Your task to perform on an android device: turn on showing notifications on the lock screen Image 0: 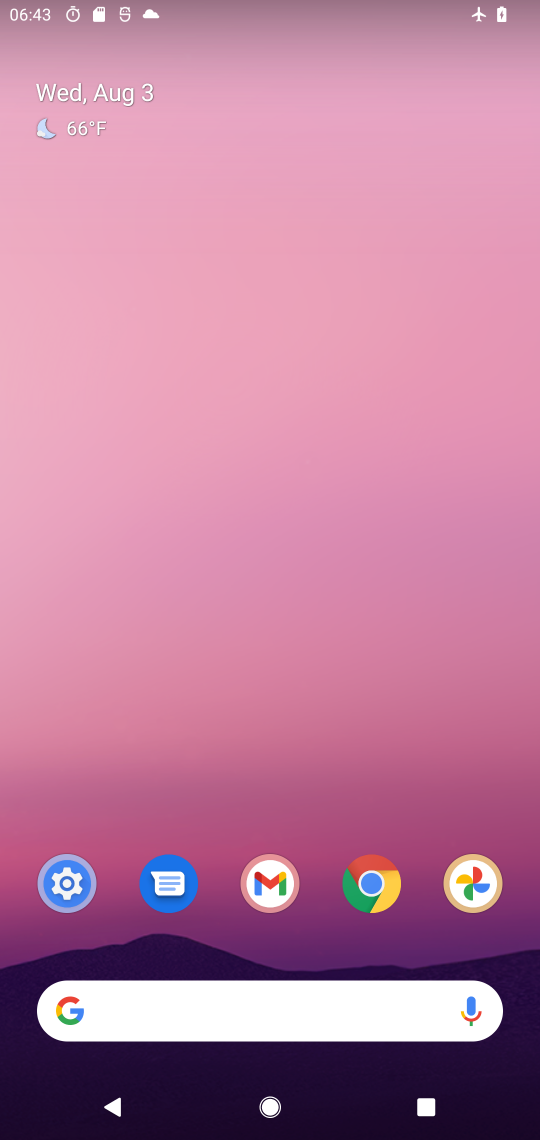
Step 0: drag from (222, 954) to (243, 355)
Your task to perform on an android device: turn on showing notifications on the lock screen Image 1: 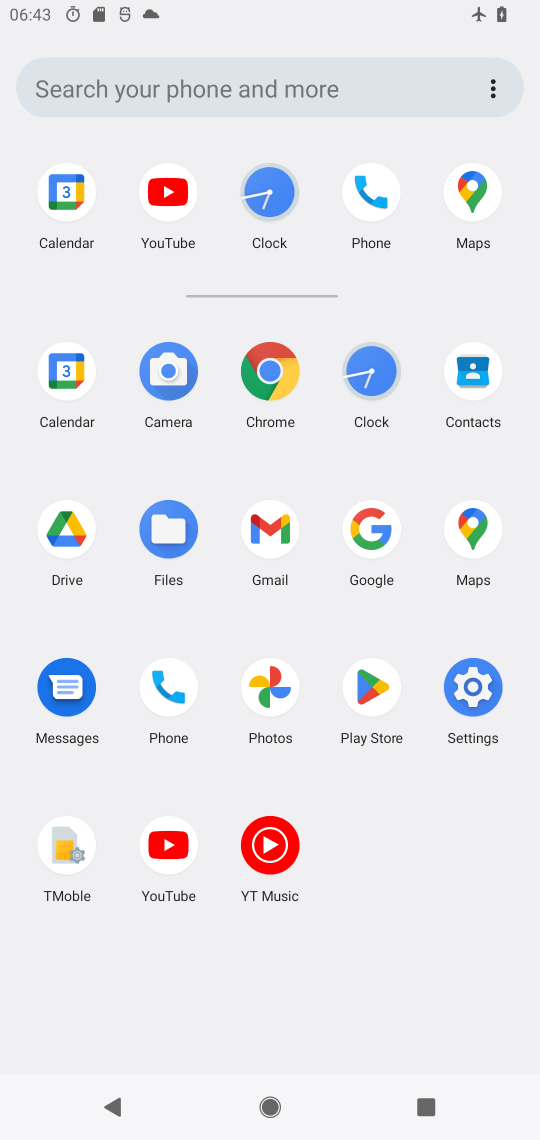
Step 1: click (466, 690)
Your task to perform on an android device: turn on showing notifications on the lock screen Image 2: 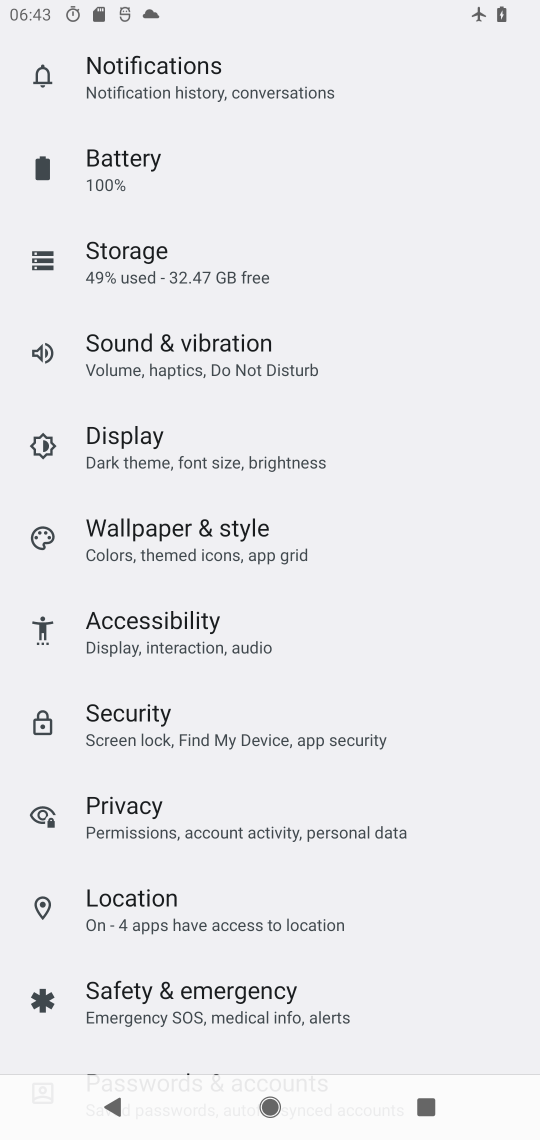
Step 2: click (146, 815)
Your task to perform on an android device: turn on showing notifications on the lock screen Image 3: 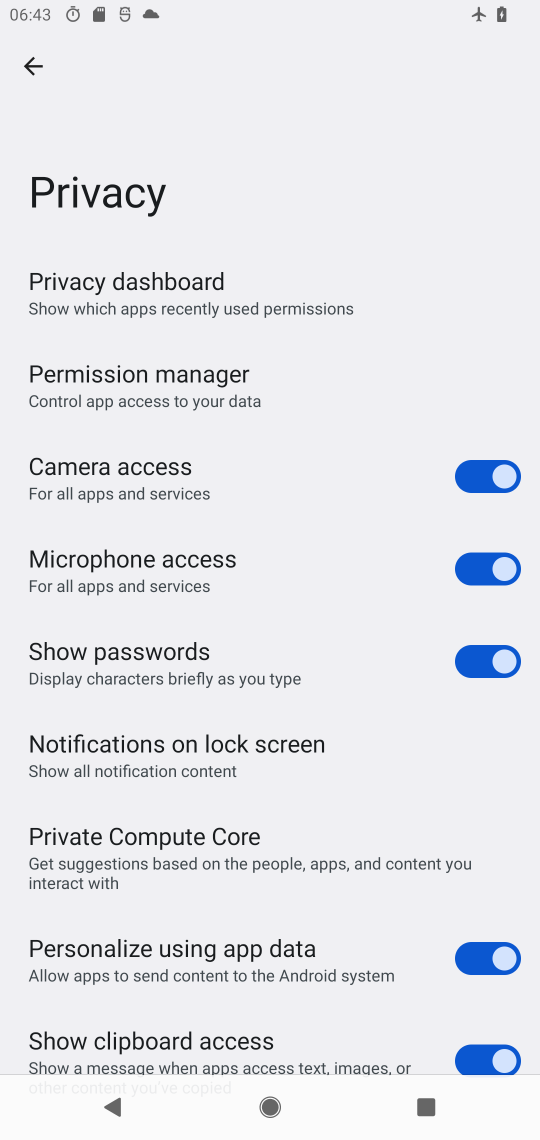
Step 3: click (153, 754)
Your task to perform on an android device: turn on showing notifications on the lock screen Image 4: 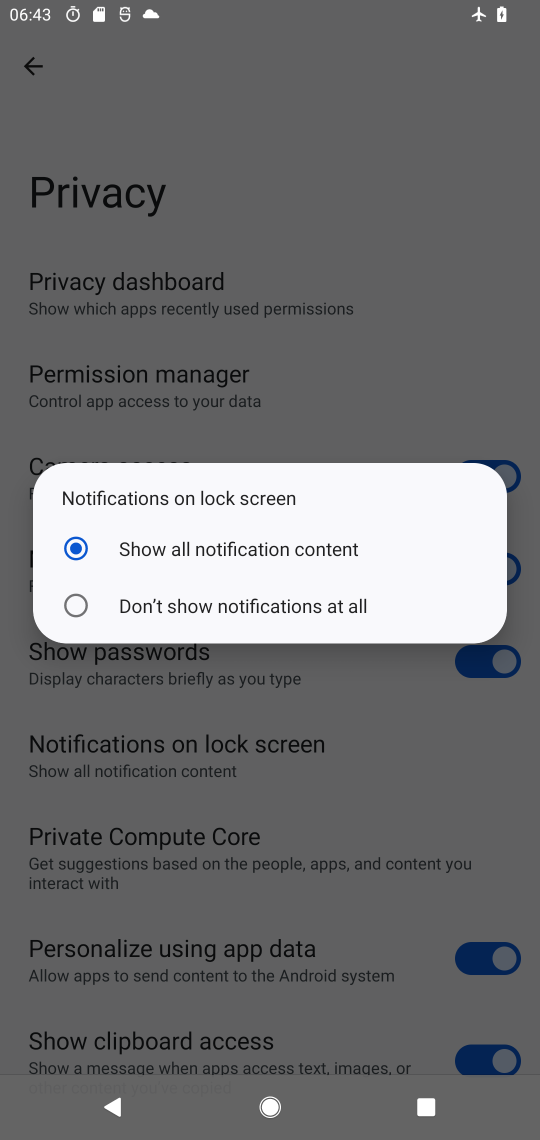
Step 4: click (387, 428)
Your task to perform on an android device: turn on showing notifications on the lock screen Image 5: 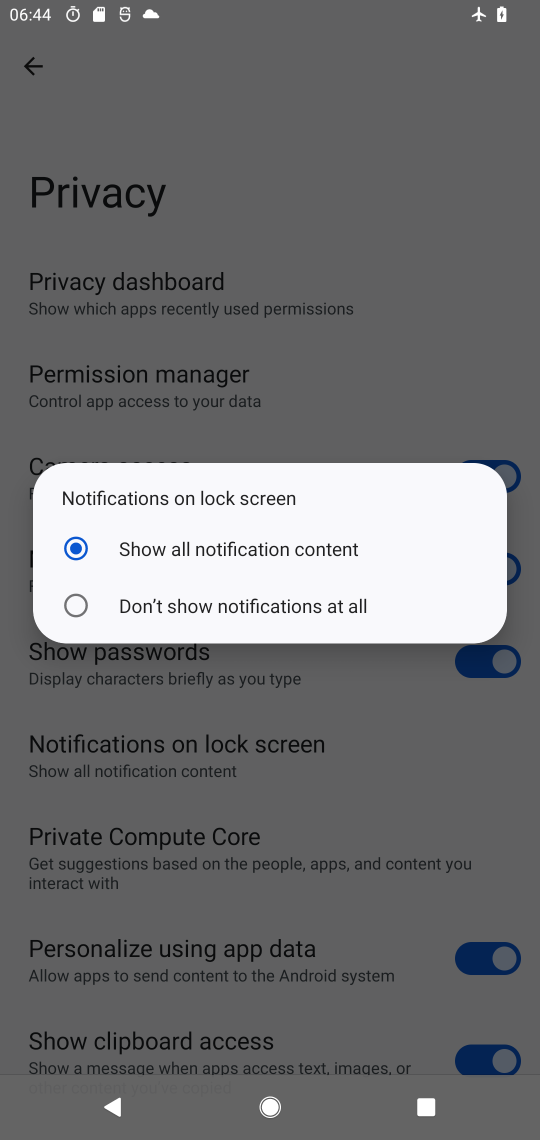
Step 5: task complete